Your task to perform on an android device: visit the assistant section in the google photos Image 0: 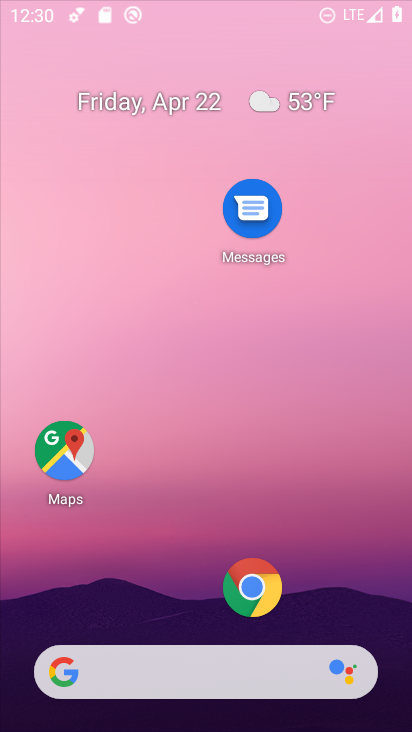
Step 0: click (253, 585)
Your task to perform on an android device: visit the assistant section in the google photos Image 1: 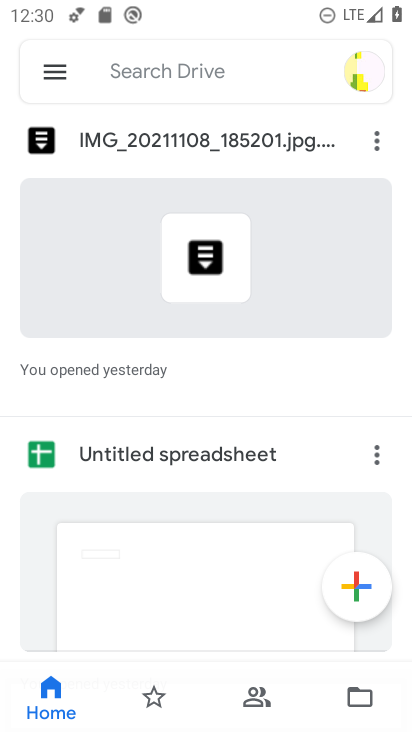
Step 1: press home button
Your task to perform on an android device: visit the assistant section in the google photos Image 2: 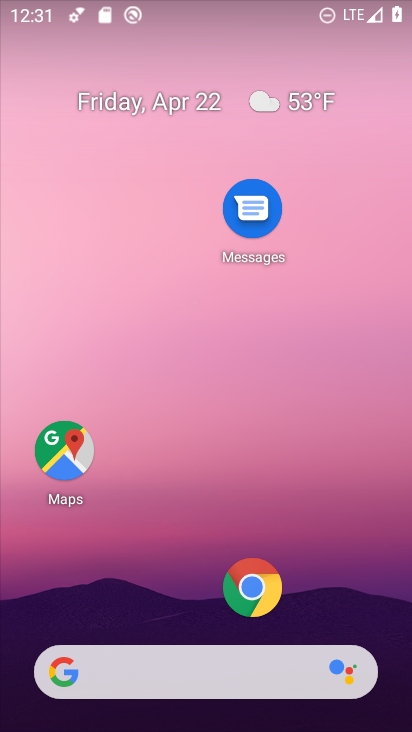
Step 2: drag from (154, 414) to (153, 185)
Your task to perform on an android device: visit the assistant section in the google photos Image 3: 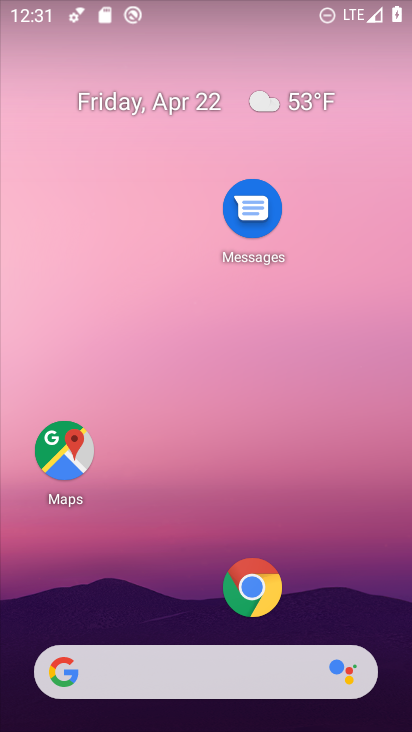
Step 3: drag from (133, 464) to (171, 200)
Your task to perform on an android device: visit the assistant section in the google photos Image 4: 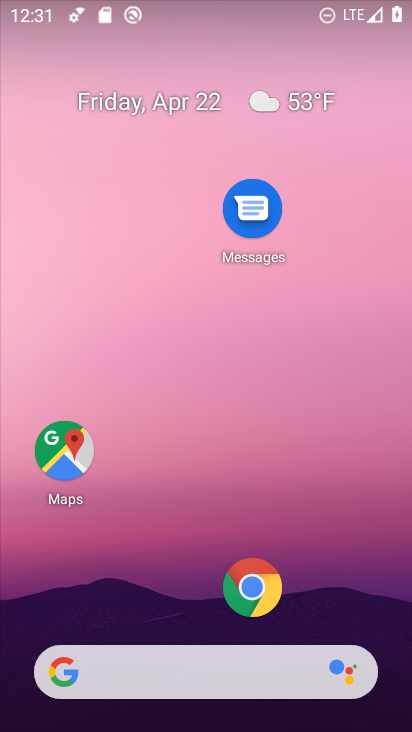
Step 4: drag from (151, 631) to (173, 206)
Your task to perform on an android device: visit the assistant section in the google photos Image 5: 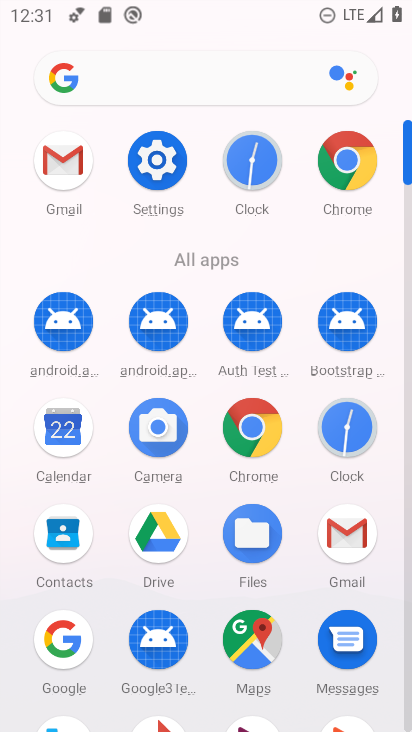
Step 5: drag from (213, 684) to (291, 237)
Your task to perform on an android device: visit the assistant section in the google photos Image 6: 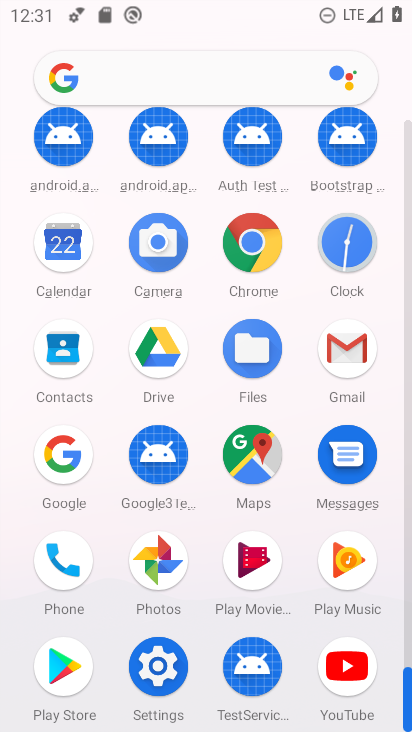
Step 6: click (150, 568)
Your task to perform on an android device: visit the assistant section in the google photos Image 7: 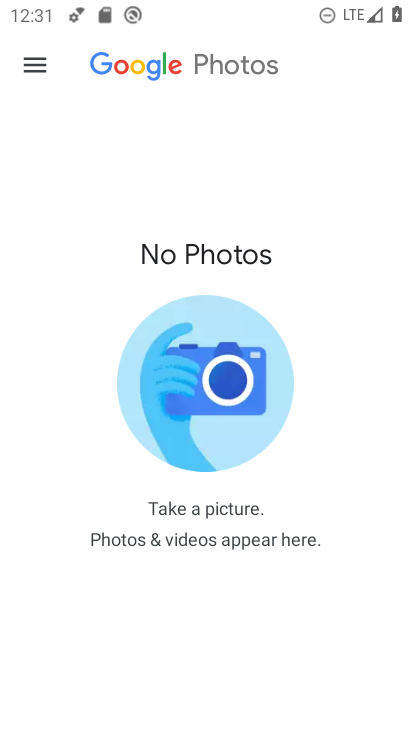
Step 7: click (33, 62)
Your task to perform on an android device: visit the assistant section in the google photos Image 8: 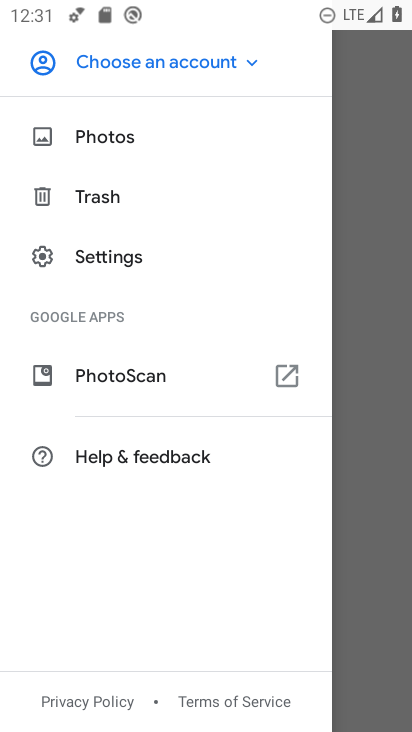
Step 8: click (366, 373)
Your task to perform on an android device: visit the assistant section in the google photos Image 9: 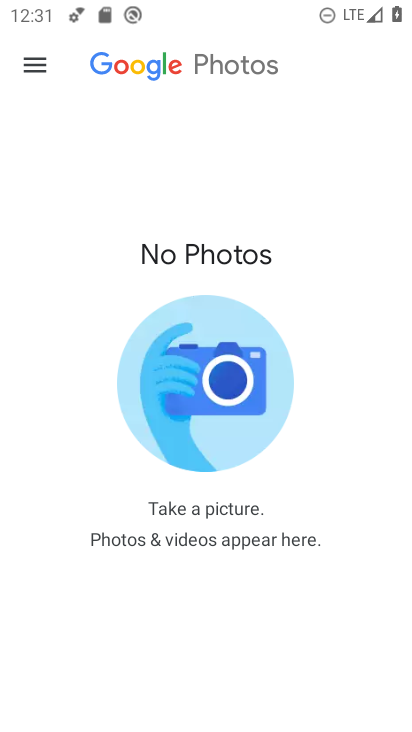
Step 9: task complete